Your task to perform on an android device: turn off location history Image 0: 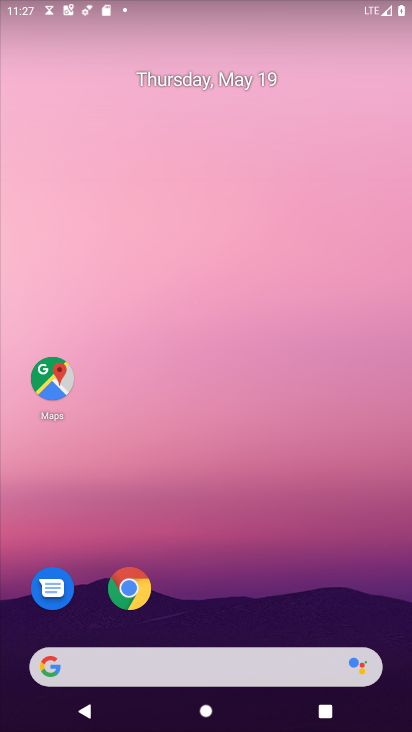
Step 0: drag from (293, 450) to (231, 3)
Your task to perform on an android device: turn off location history Image 1: 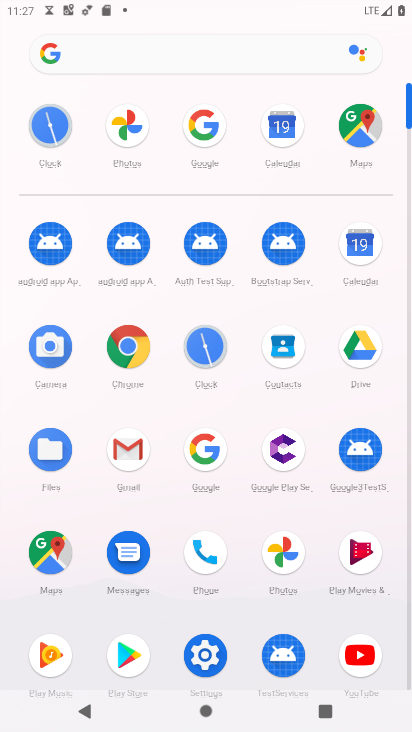
Step 1: click (216, 648)
Your task to perform on an android device: turn off location history Image 2: 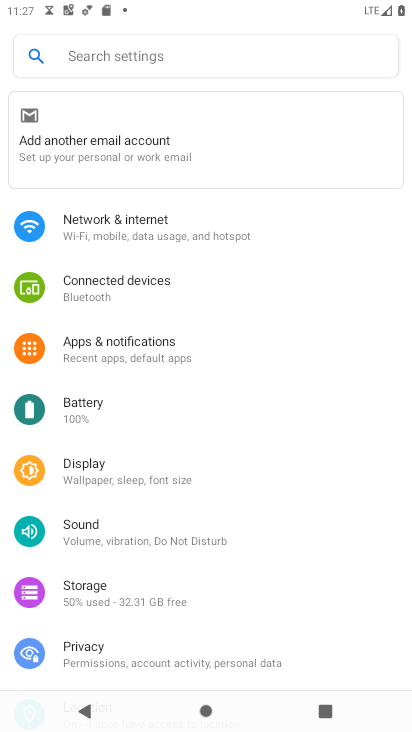
Step 2: drag from (191, 618) to (148, 159)
Your task to perform on an android device: turn off location history Image 3: 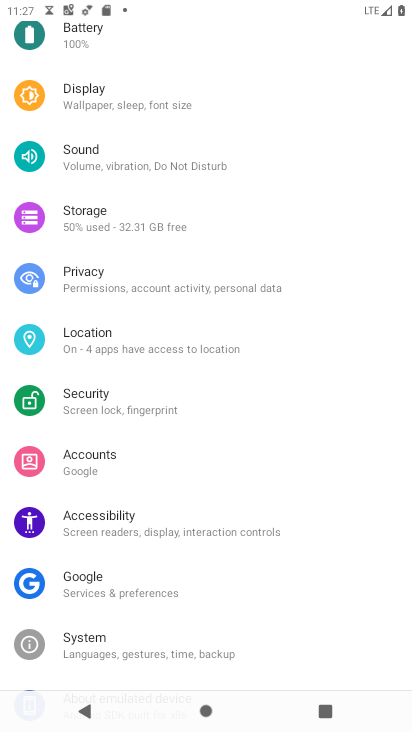
Step 3: click (127, 344)
Your task to perform on an android device: turn off location history Image 4: 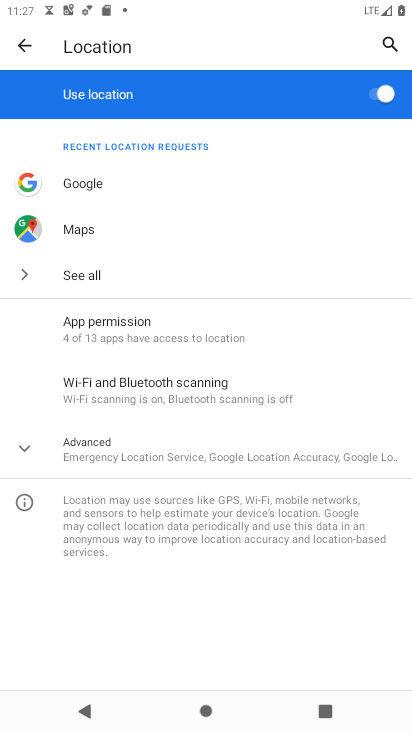
Step 4: click (375, 88)
Your task to perform on an android device: turn off location history Image 5: 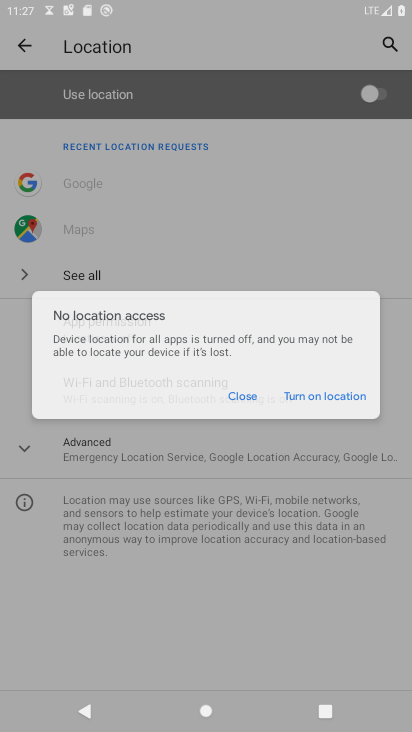
Step 5: click (369, 86)
Your task to perform on an android device: turn off location history Image 6: 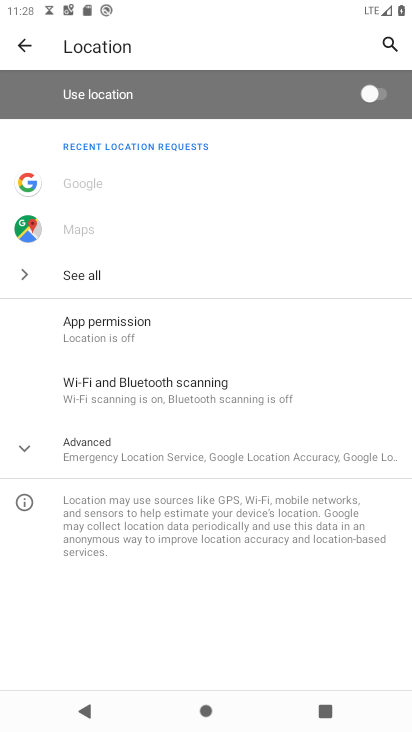
Step 6: click (181, 441)
Your task to perform on an android device: turn off location history Image 7: 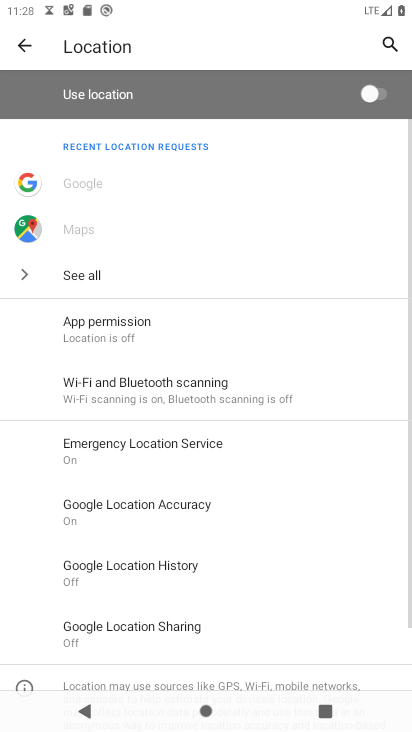
Step 7: click (237, 564)
Your task to perform on an android device: turn off location history Image 8: 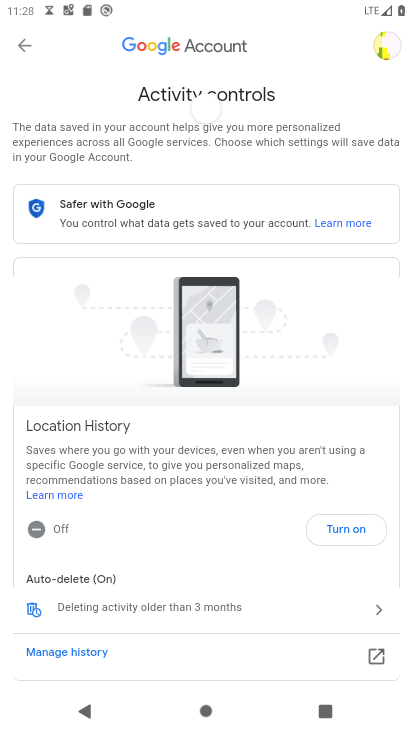
Step 8: task complete